Your task to perform on an android device: Search for the new Nintendo switch on Best Buy Image 0: 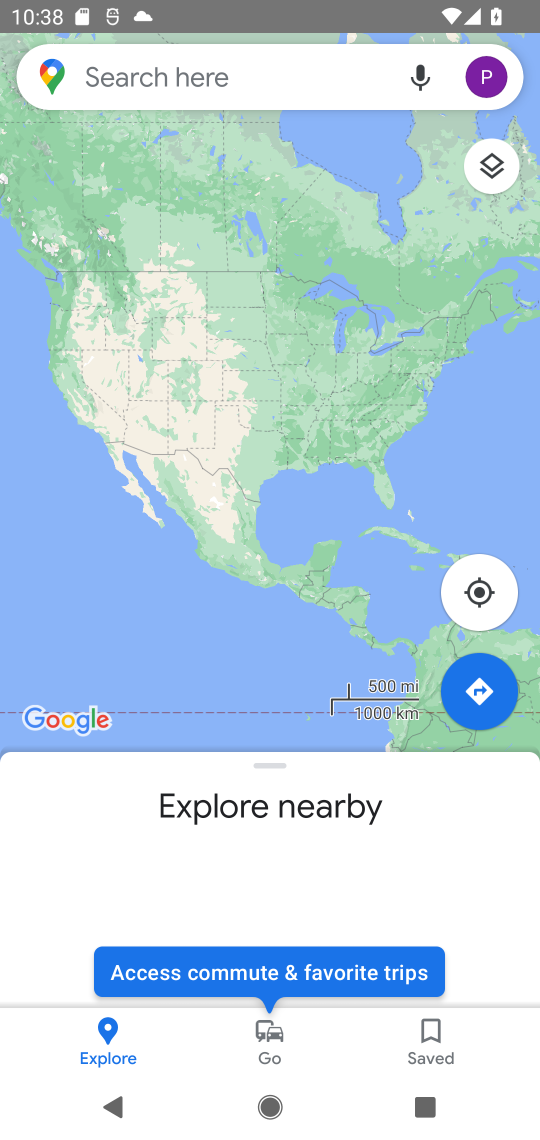
Step 0: press home button
Your task to perform on an android device: Search for the new Nintendo switch on Best Buy Image 1: 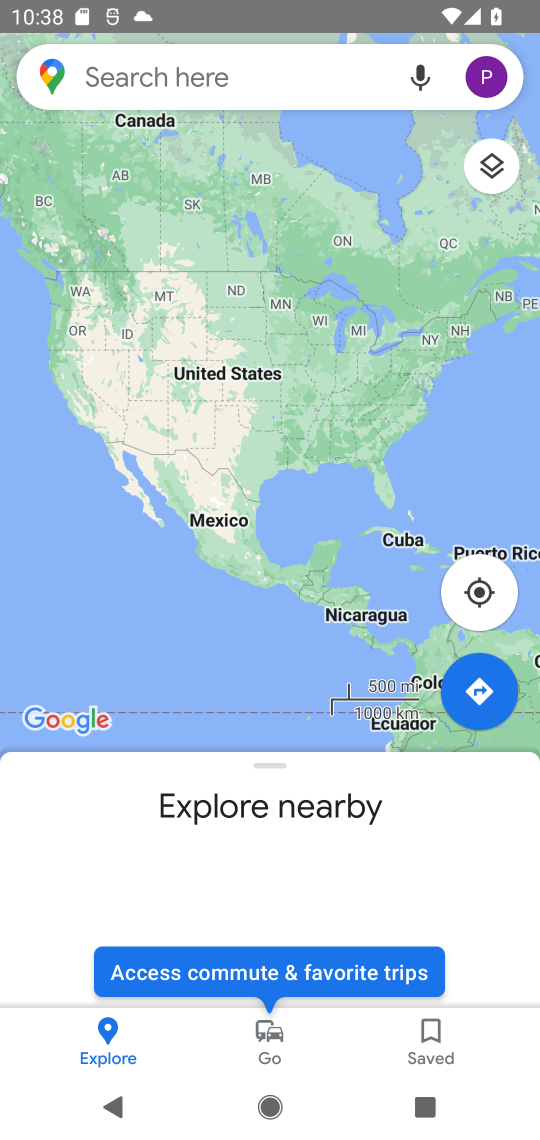
Step 1: press home button
Your task to perform on an android device: Search for the new Nintendo switch on Best Buy Image 2: 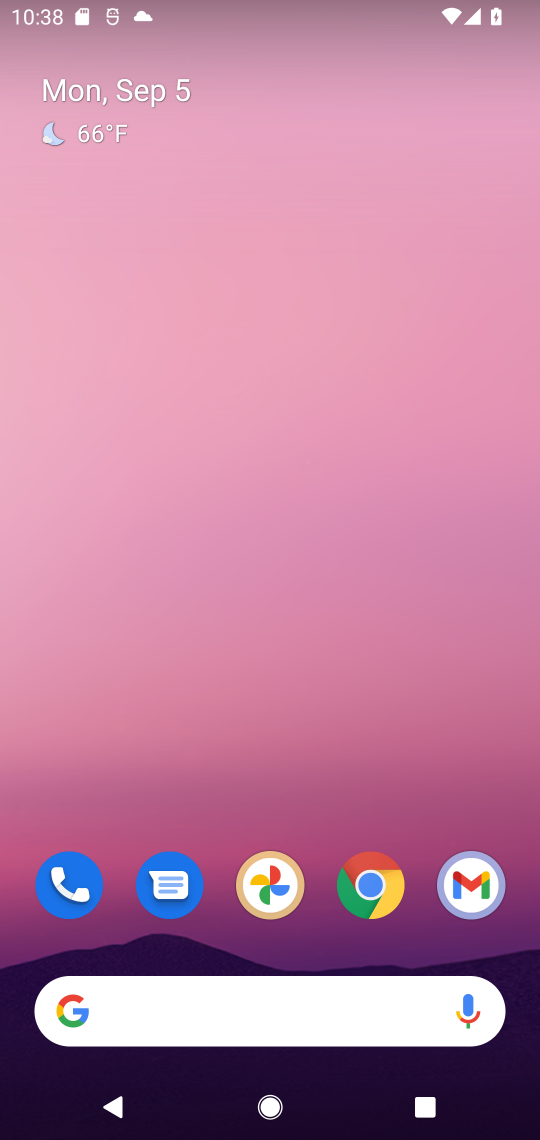
Step 2: drag from (333, 691) to (371, 144)
Your task to perform on an android device: Search for the new Nintendo switch on Best Buy Image 3: 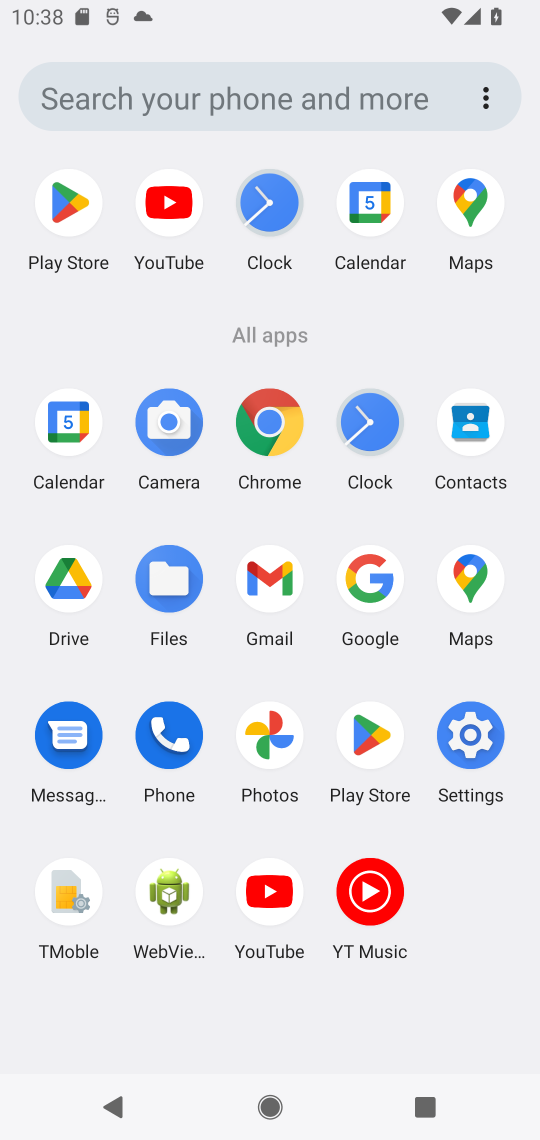
Step 3: click (256, 421)
Your task to perform on an android device: Search for the new Nintendo switch on Best Buy Image 4: 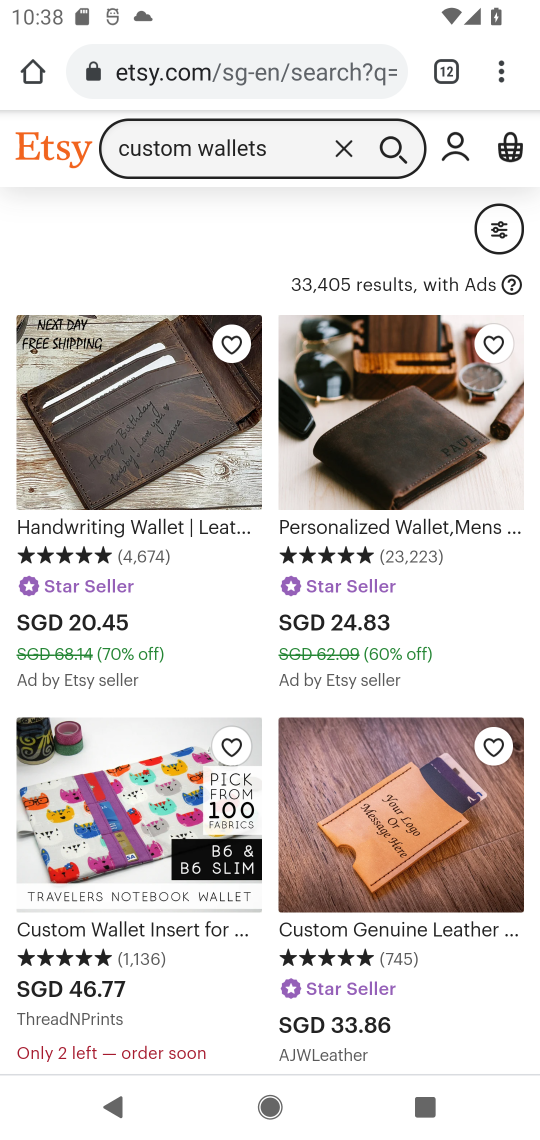
Step 4: click (499, 81)
Your task to perform on an android device: Search for the new Nintendo switch on Best Buy Image 5: 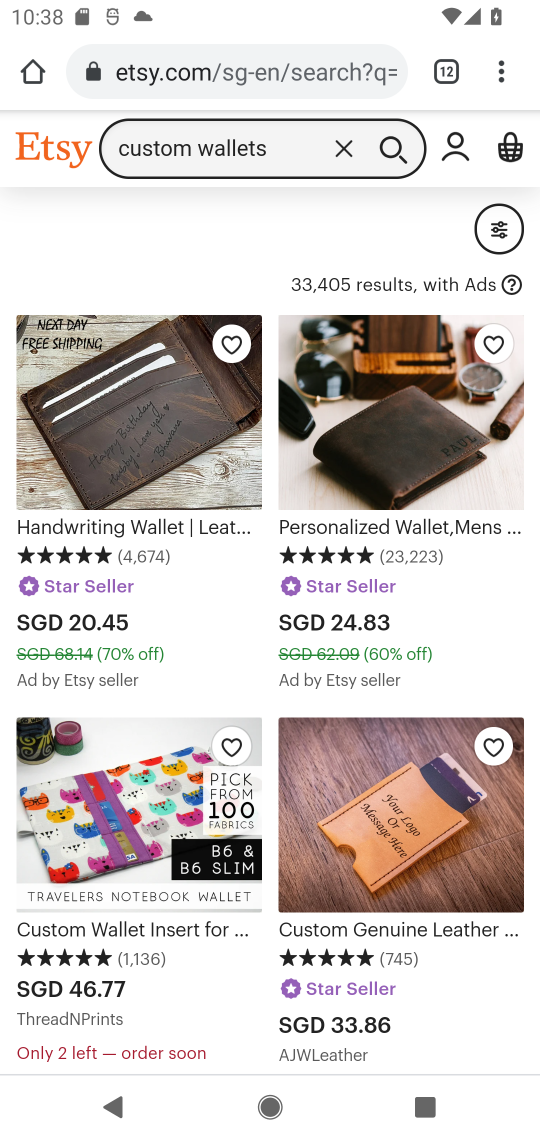
Step 5: drag from (444, 103) to (273, 228)
Your task to perform on an android device: Search for the new Nintendo switch on Best Buy Image 6: 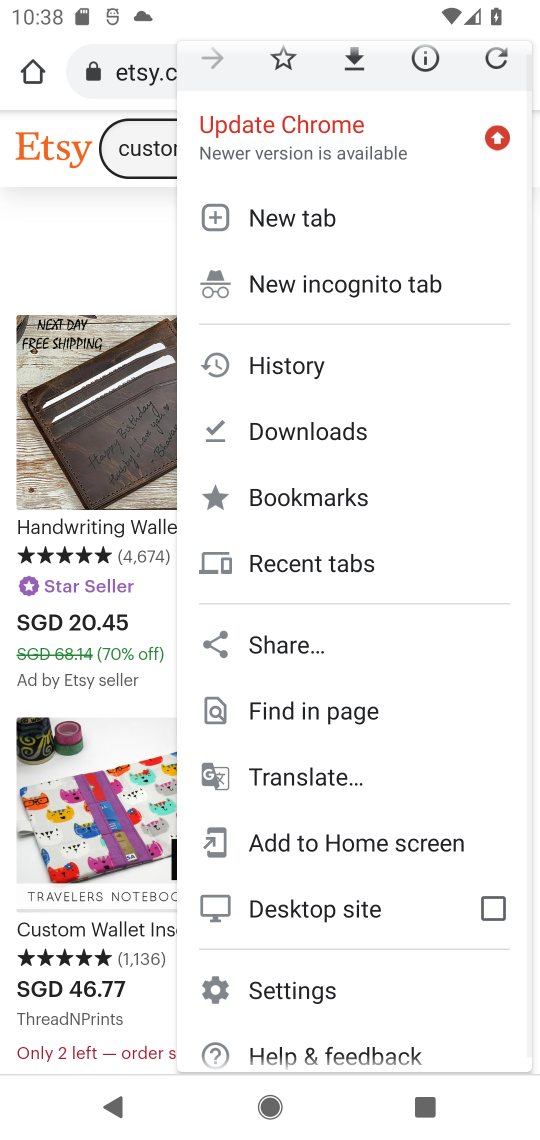
Step 6: click (259, 221)
Your task to perform on an android device: Search for the new Nintendo switch on Best Buy Image 7: 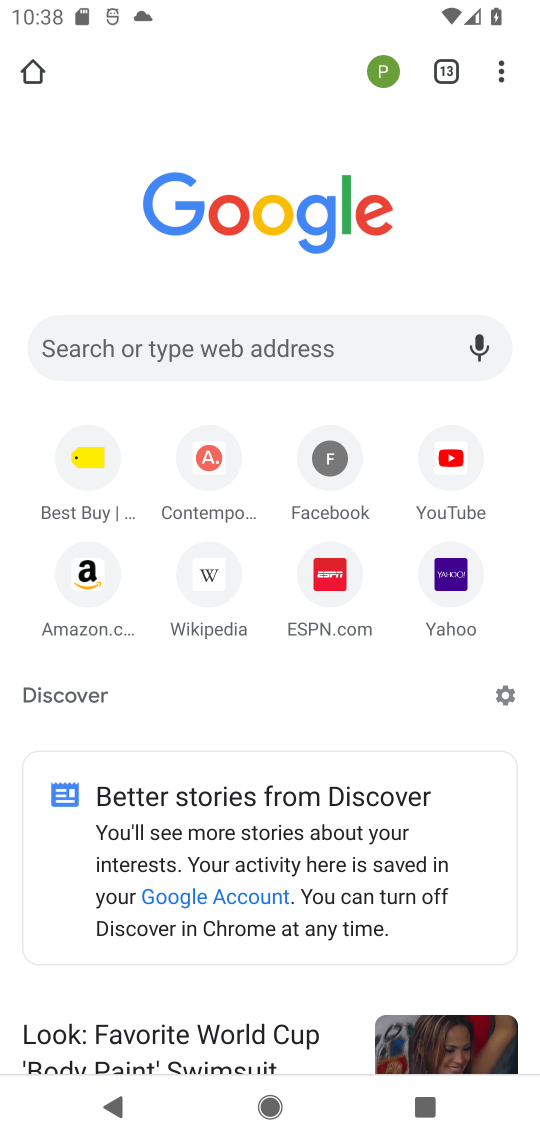
Step 7: click (294, 359)
Your task to perform on an android device: Search for the new Nintendo switch on Best Buy Image 8: 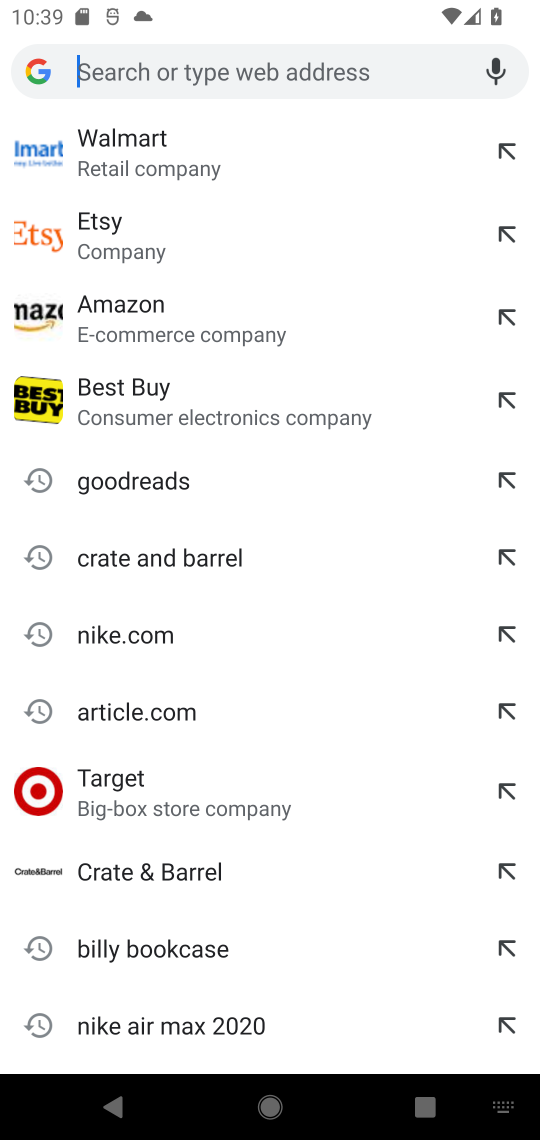
Step 8: type " Best Buy"
Your task to perform on an android device: Search for the new Nintendo switch on Best Buy Image 9: 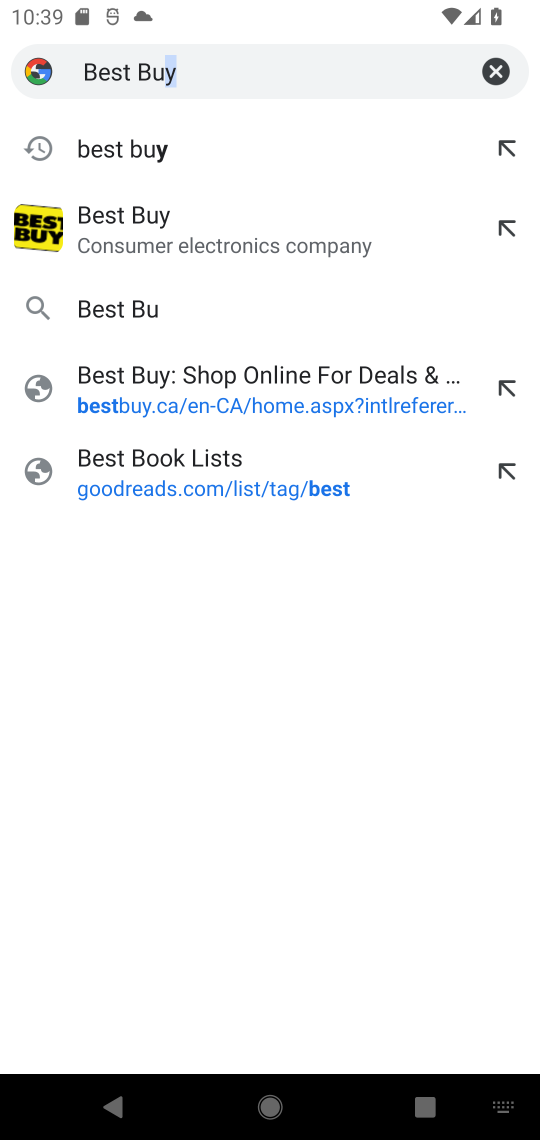
Step 9: type ""
Your task to perform on an android device: Search for the new Nintendo switch on Best Buy Image 10: 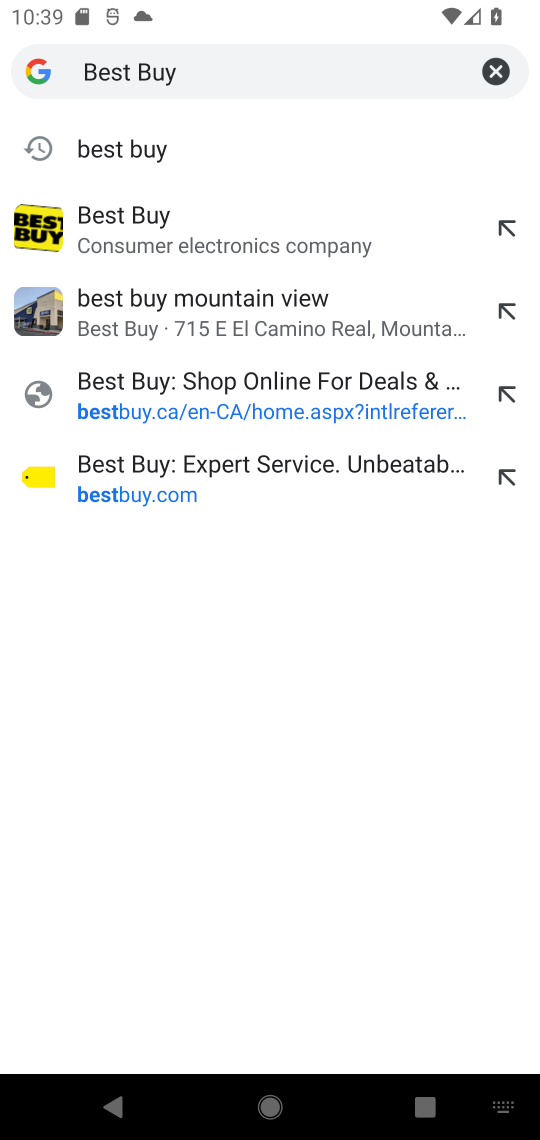
Step 10: click (139, 146)
Your task to perform on an android device: Search for the new Nintendo switch on Best Buy Image 11: 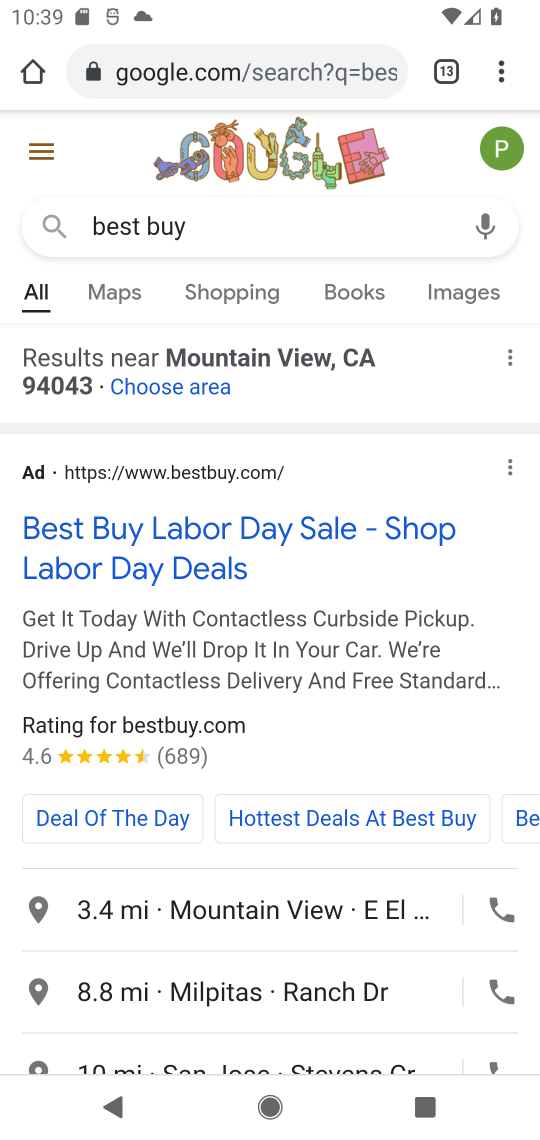
Step 11: click (154, 541)
Your task to perform on an android device: Search for the new Nintendo switch on Best Buy Image 12: 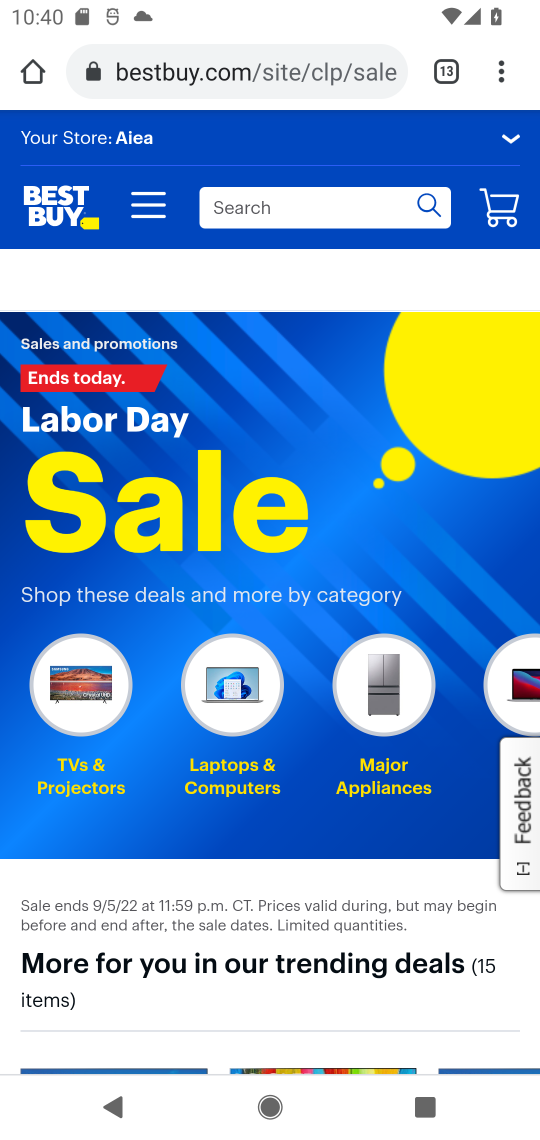
Step 12: click (311, 192)
Your task to perform on an android device: Search for the new Nintendo switch on Best Buy Image 13: 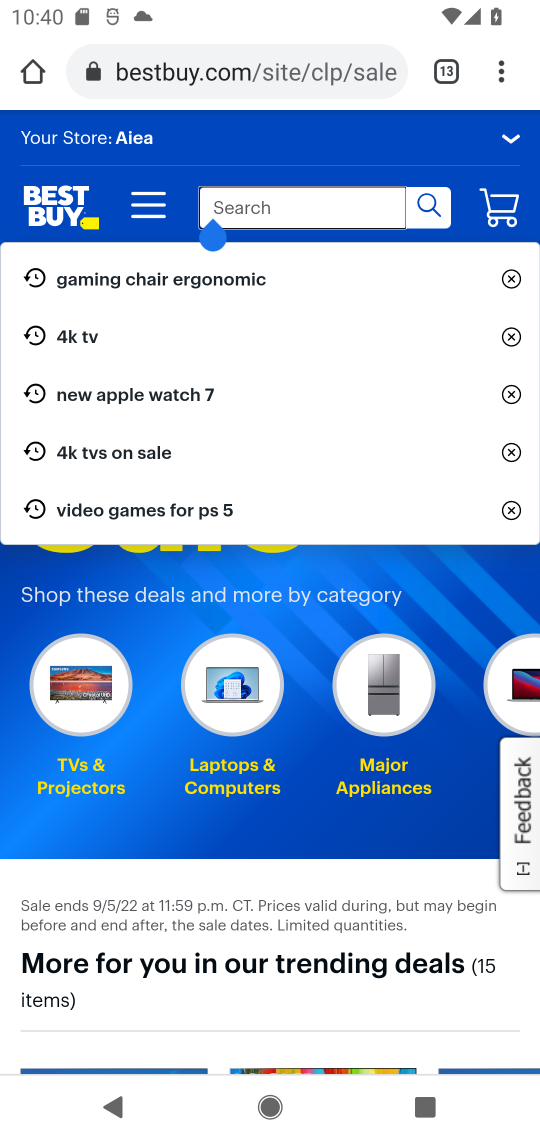
Step 13: type "Nintendo switch"
Your task to perform on an android device: Search for the new Nintendo switch on Best Buy Image 14: 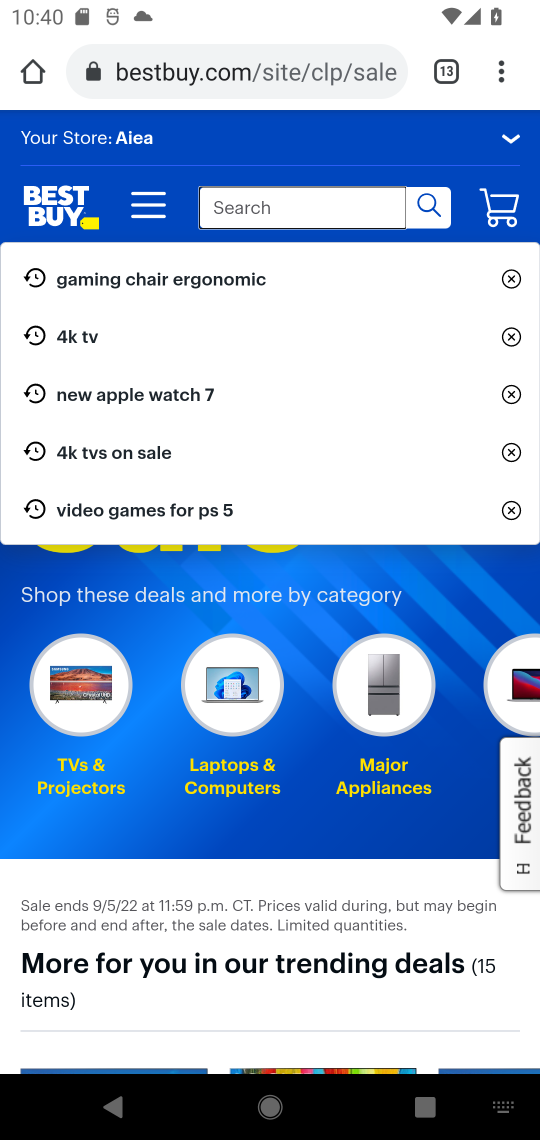
Step 14: type ""
Your task to perform on an android device: Search for the new Nintendo switch on Best Buy Image 15: 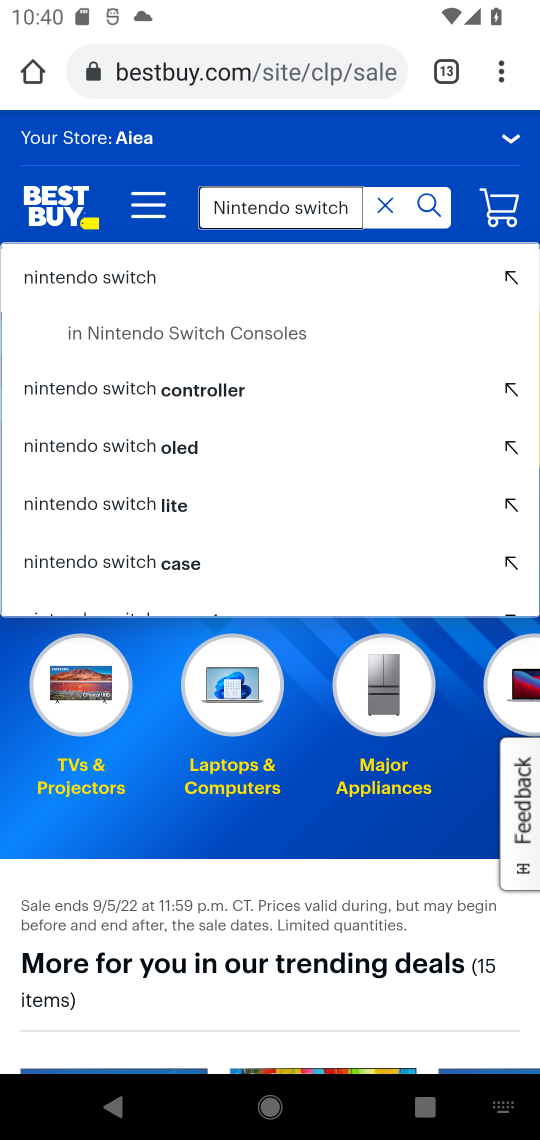
Step 15: click (115, 281)
Your task to perform on an android device: Search for the new Nintendo switch on Best Buy Image 16: 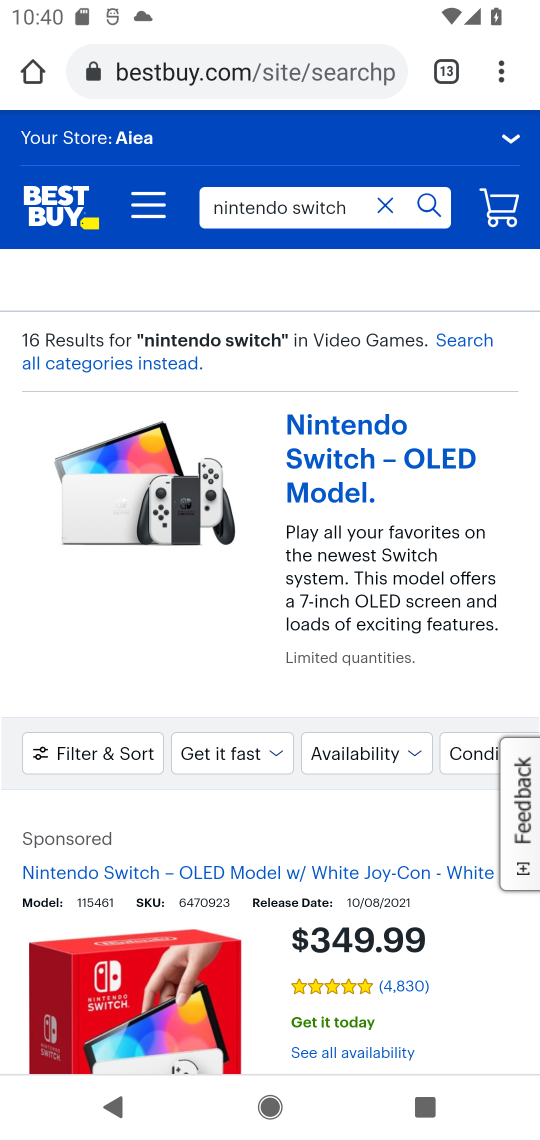
Step 16: task complete